Your task to perform on an android device: turn off wifi Image 0: 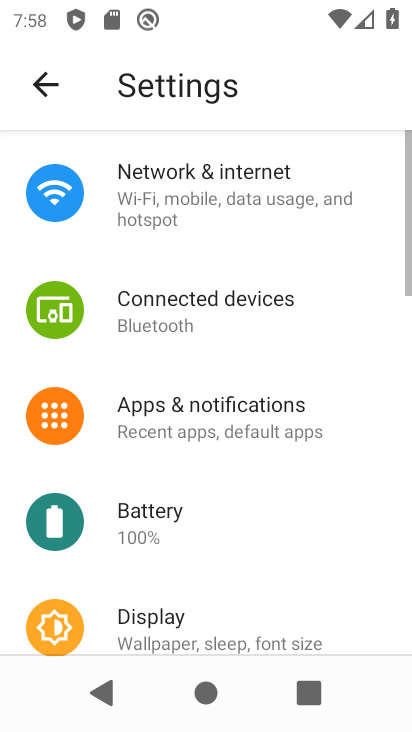
Step 0: press home button
Your task to perform on an android device: turn off wifi Image 1: 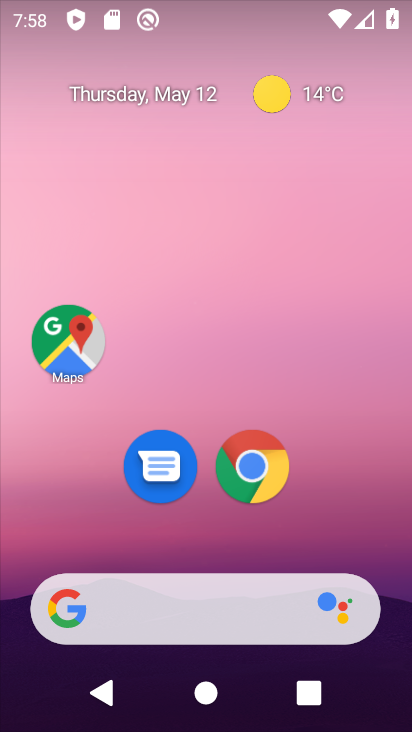
Step 1: drag from (169, 9) to (162, 624)
Your task to perform on an android device: turn off wifi Image 2: 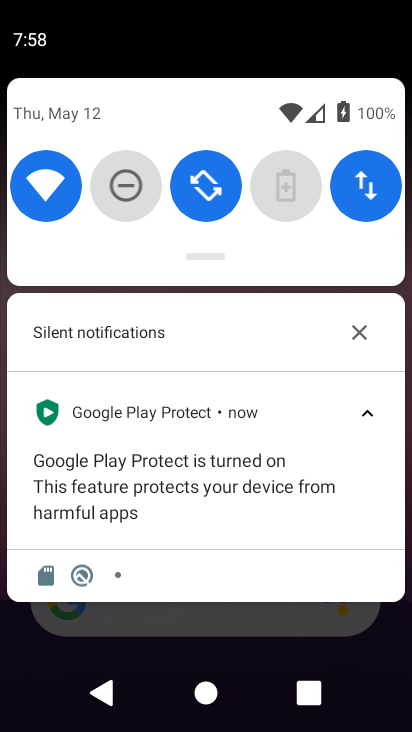
Step 2: click (42, 196)
Your task to perform on an android device: turn off wifi Image 3: 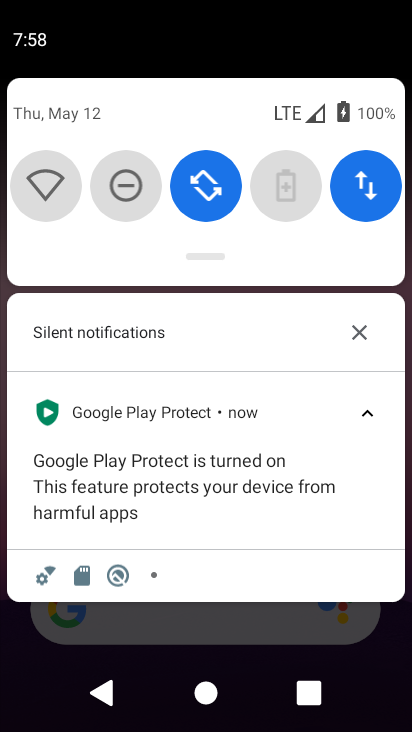
Step 3: task complete